Your task to perform on an android device: see tabs open on other devices in the chrome app Image 0: 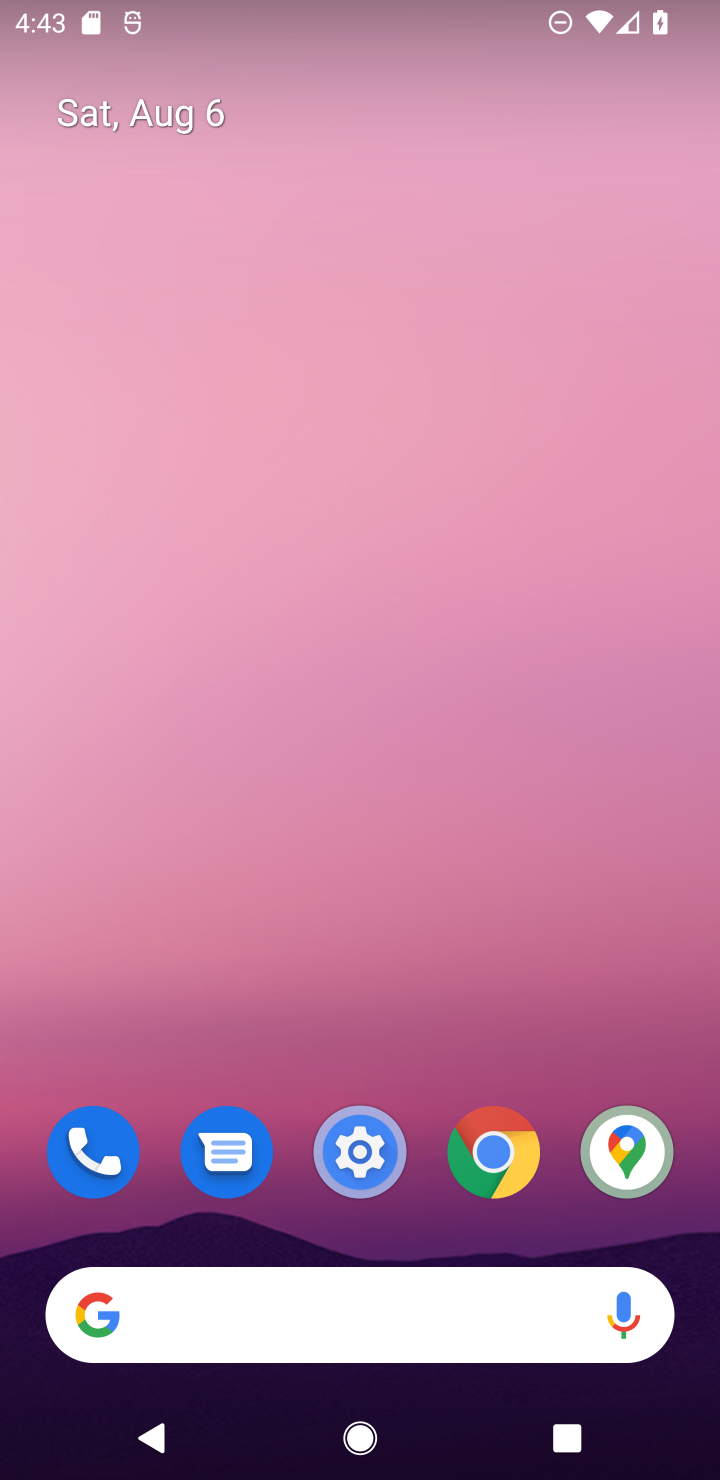
Step 0: drag from (574, 1227) to (560, 945)
Your task to perform on an android device: see tabs open on other devices in the chrome app Image 1: 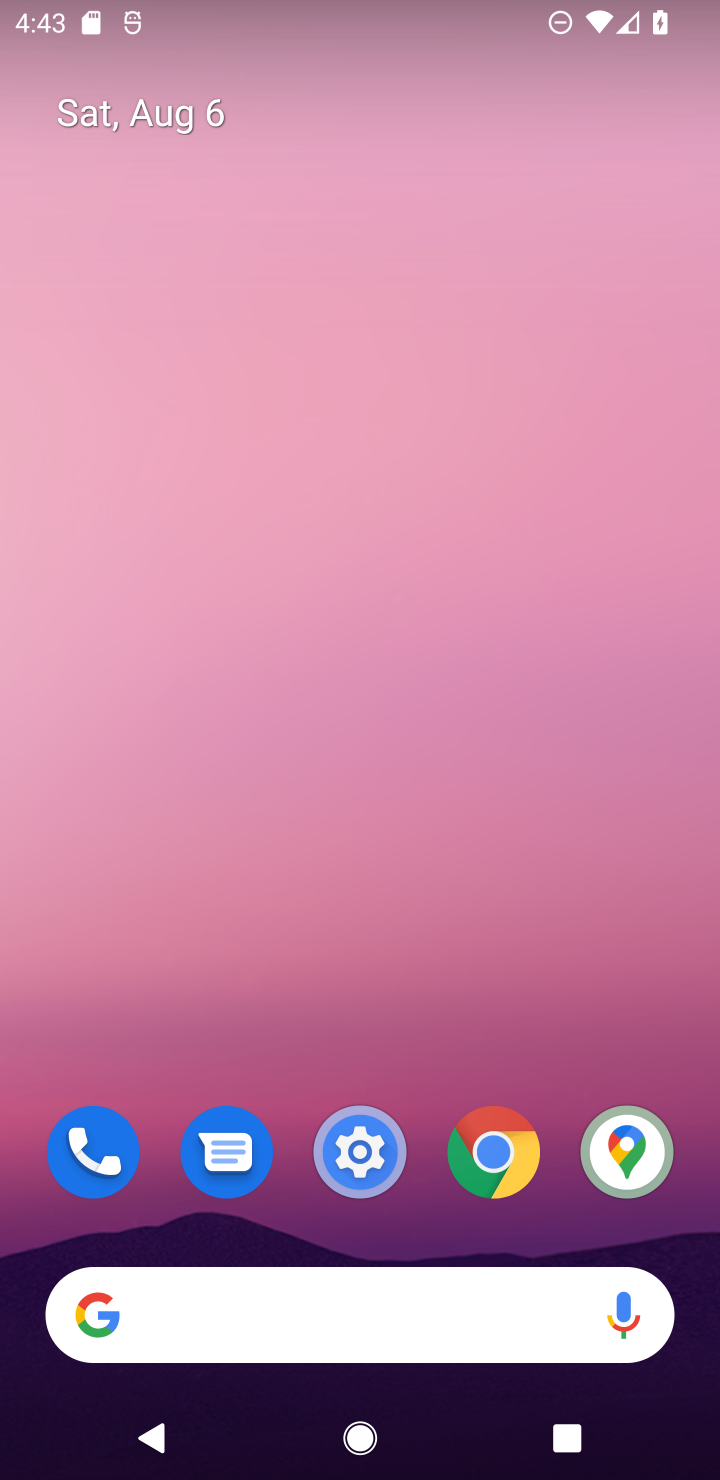
Step 1: drag from (439, 1042) to (524, 576)
Your task to perform on an android device: see tabs open on other devices in the chrome app Image 2: 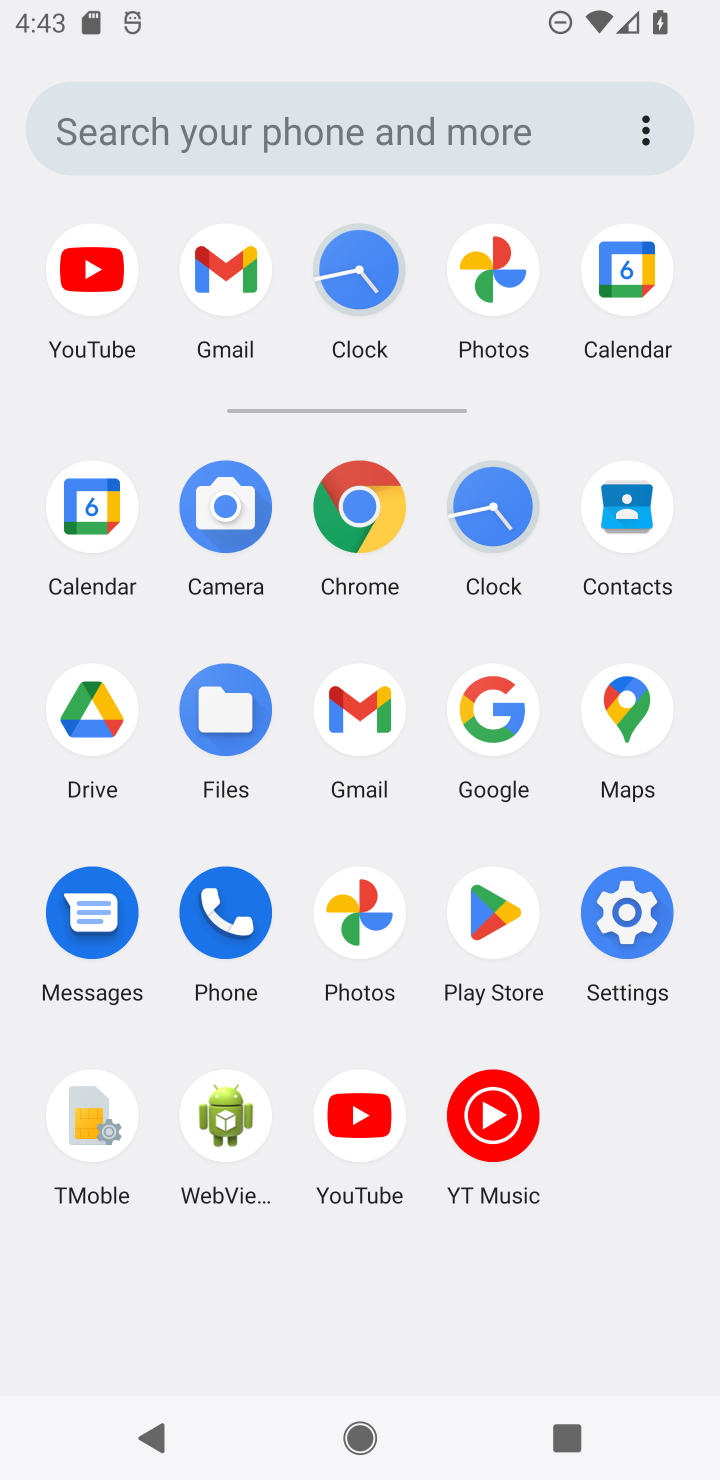
Step 2: click (351, 500)
Your task to perform on an android device: see tabs open on other devices in the chrome app Image 3: 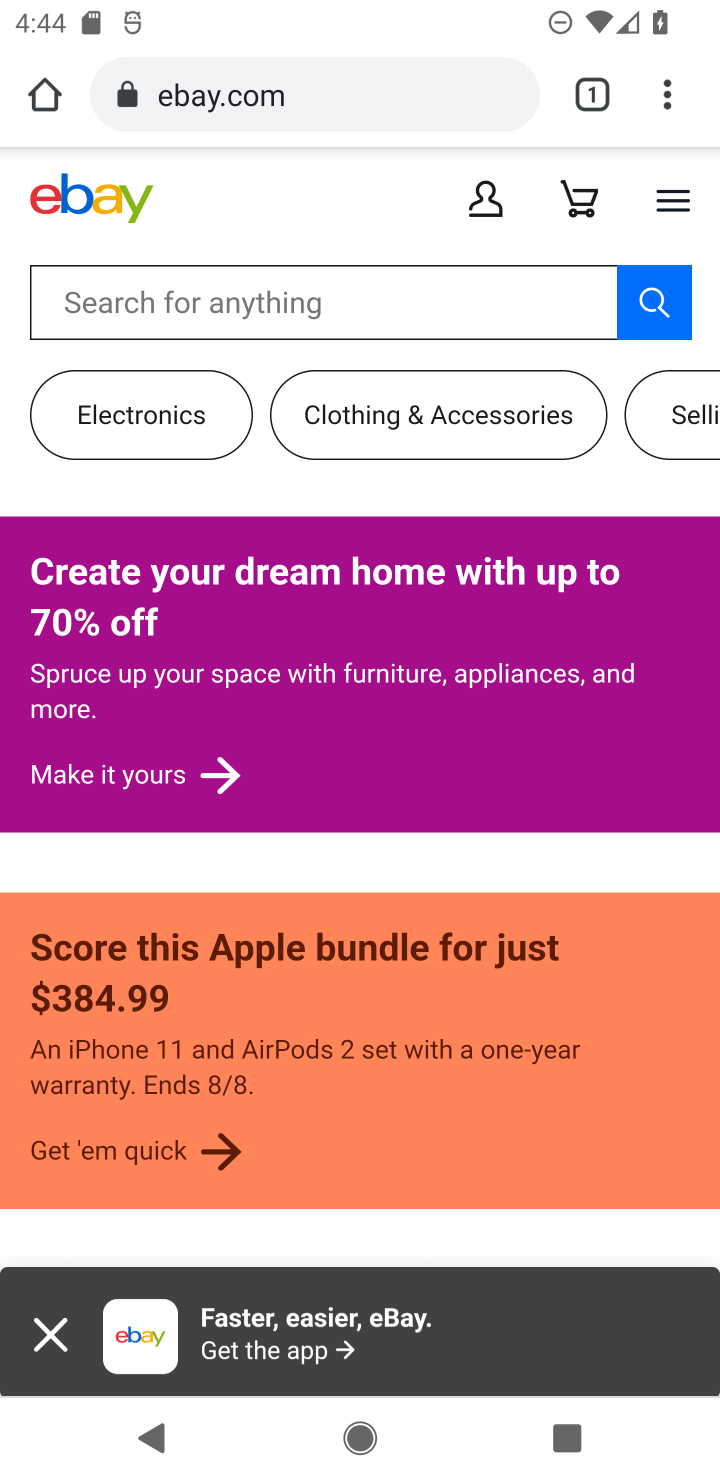
Step 3: task complete